Your task to perform on an android device: Search for seafood restaurants on Google Maps Image 0: 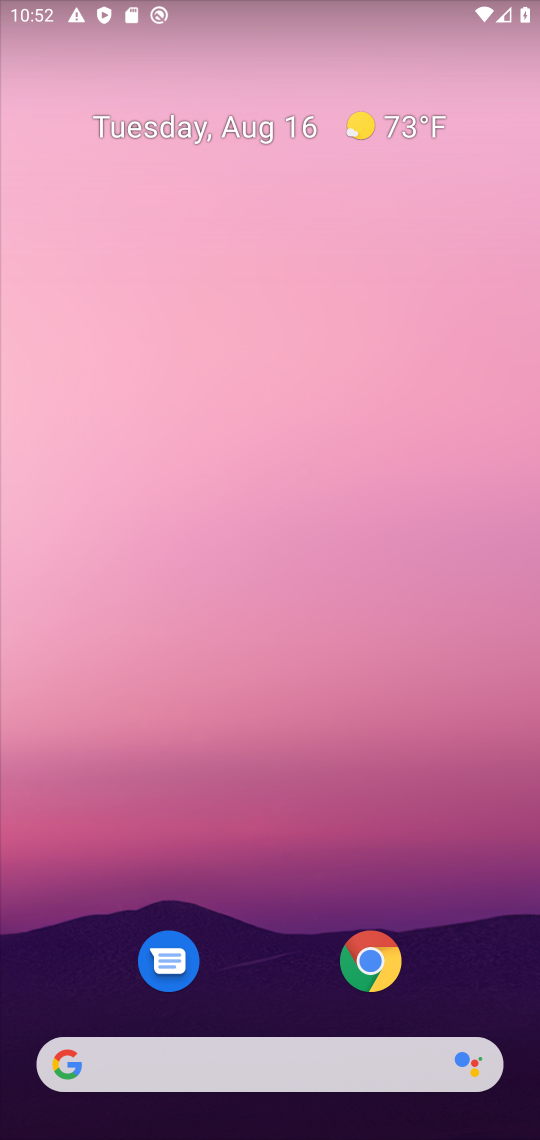
Step 0: drag from (292, 850) to (364, 55)
Your task to perform on an android device: Search for seafood restaurants on Google Maps Image 1: 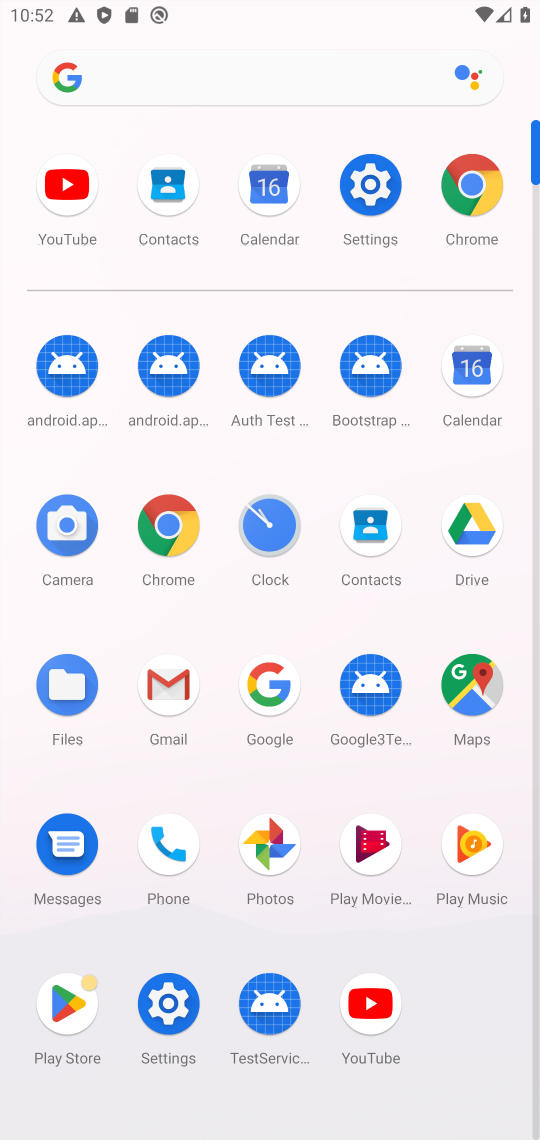
Step 1: click (467, 683)
Your task to perform on an android device: Search for seafood restaurants on Google Maps Image 2: 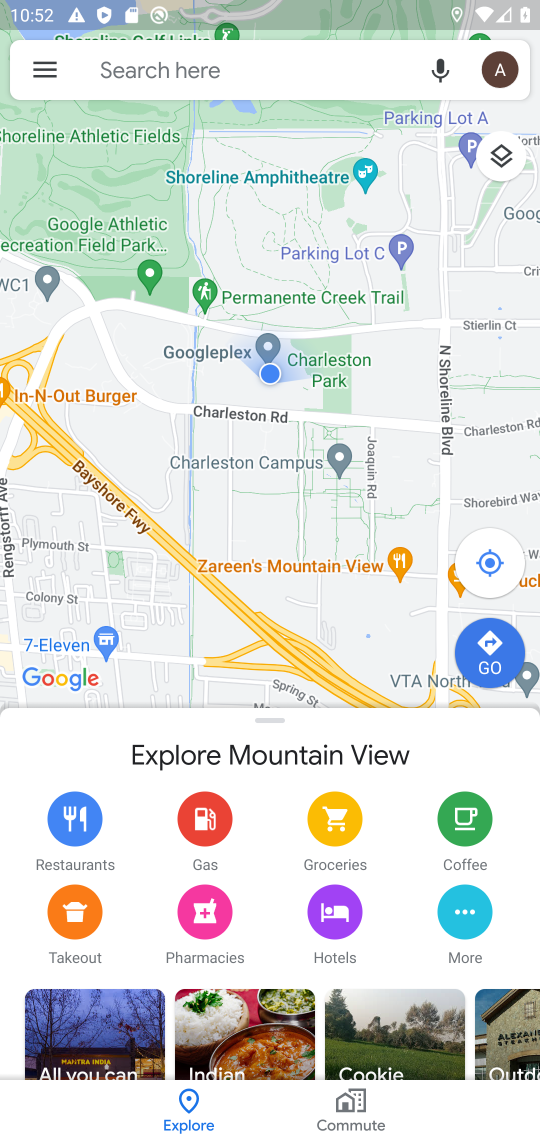
Step 2: task complete